Your task to perform on an android device: delete browsing data in the chrome app Image 0: 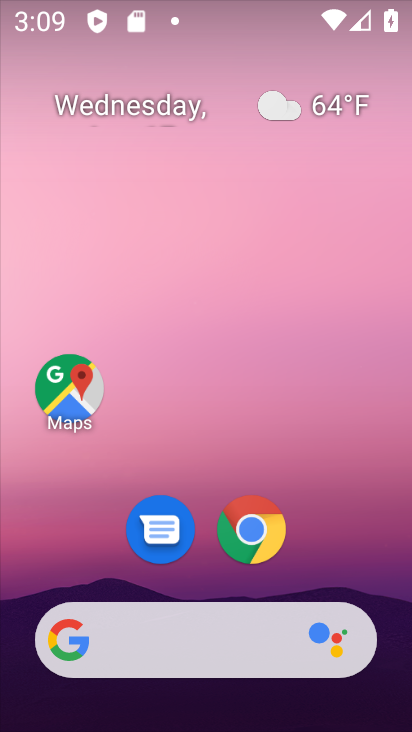
Step 0: click (243, 550)
Your task to perform on an android device: delete browsing data in the chrome app Image 1: 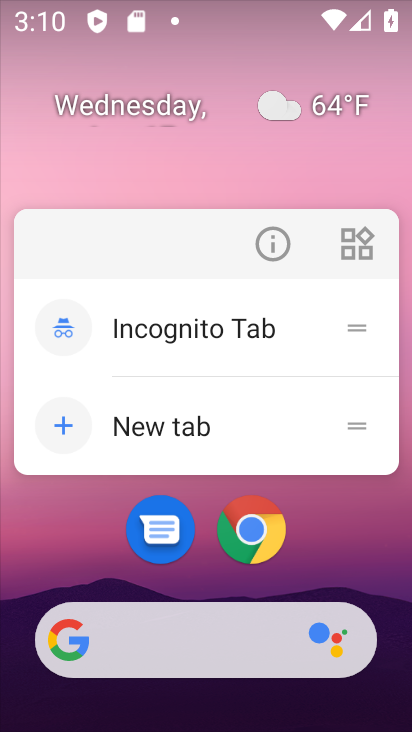
Step 1: click (243, 550)
Your task to perform on an android device: delete browsing data in the chrome app Image 2: 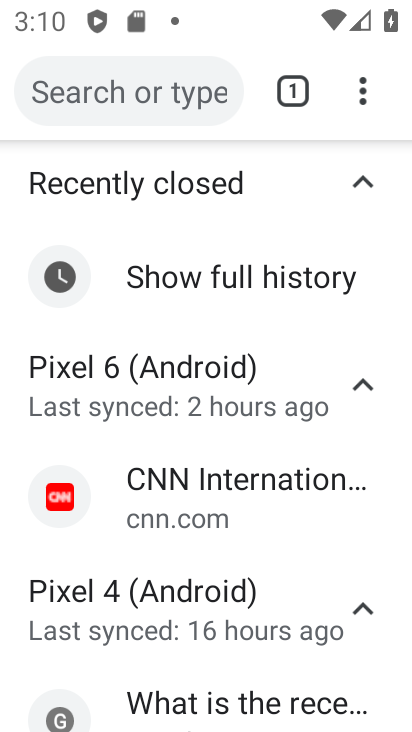
Step 2: drag from (363, 85) to (126, 501)
Your task to perform on an android device: delete browsing data in the chrome app Image 3: 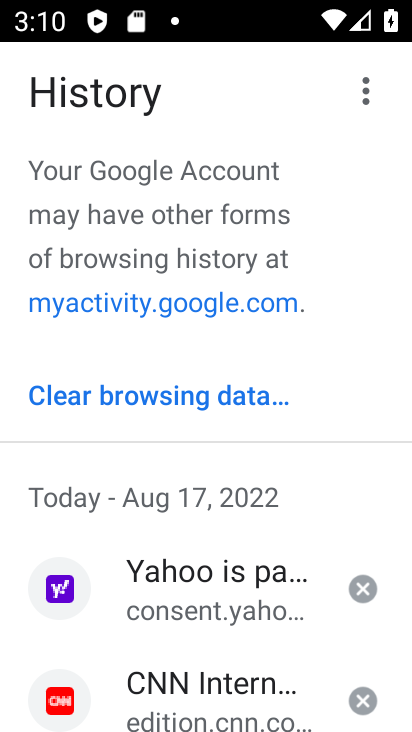
Step 3: click (122, 391)
Your task to perform on an android device: delete browsing data in the chrome app Image 4: 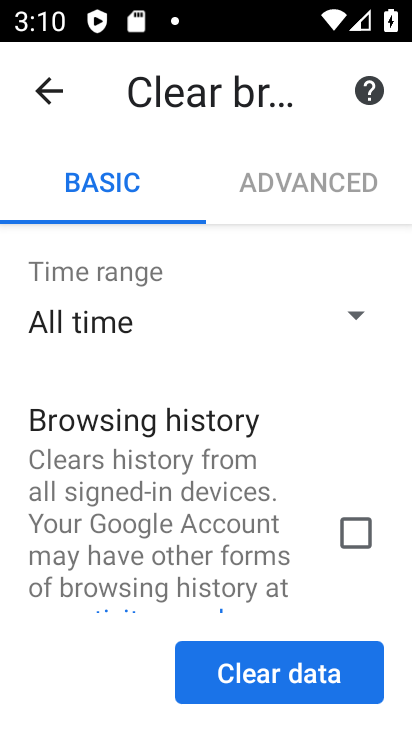
Step 4: click (339, 542)
Your task to perform on an android device: delete browsing data in the chrome app Image 5: 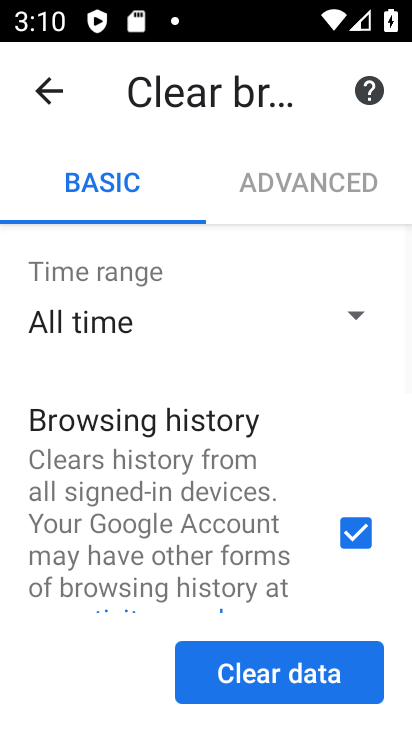
Step 5: click (278, 687)
Your task to perform on an android device: delete browsing data in the chrome app Image 6: 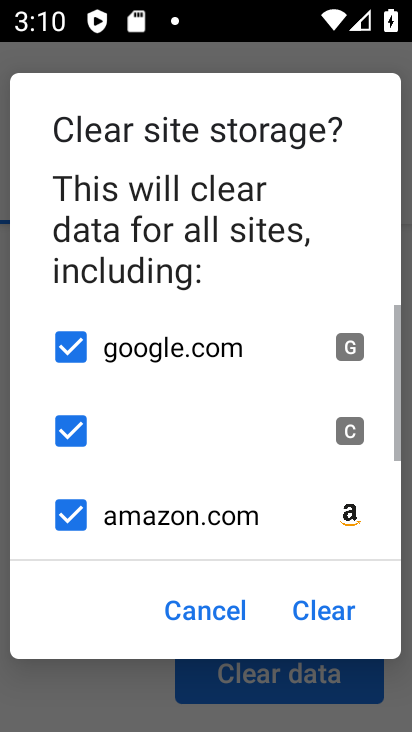
Step 6: click (330, 627)
Your task to perform on an android device: delete browsing data in the chrome app Image 7: 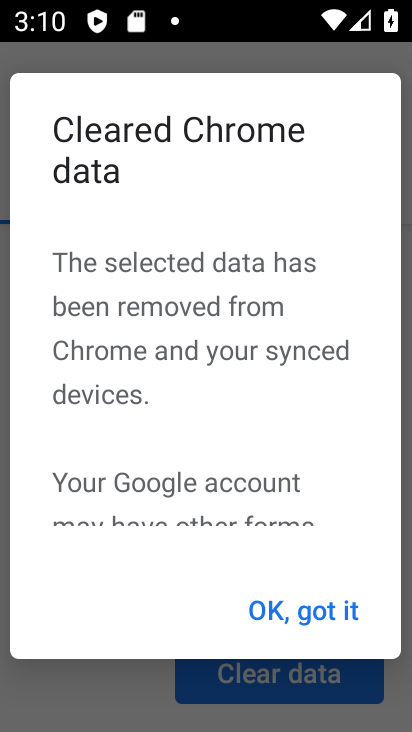
Step 7: click (302, 608)
Your task to perform on an android device: delete browsing data in the chrome app Image 8: 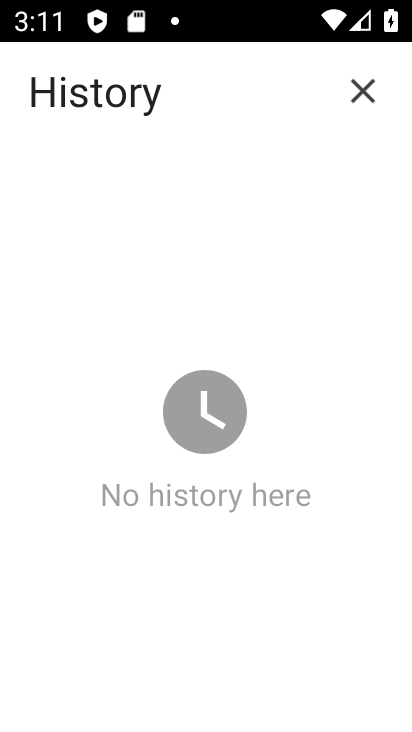
Step 8: task complete